Your task to perform on an android device: turn off location Image 0: 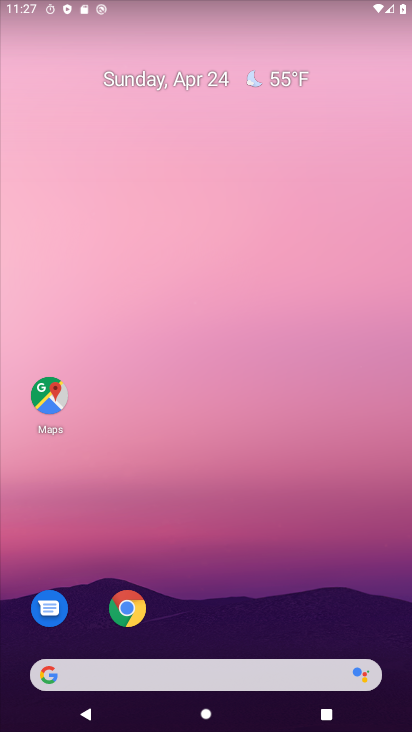
Step 0: drag from (222, 603) to (386, 131)
Your task to perform on an android device: turn off location Image 1: 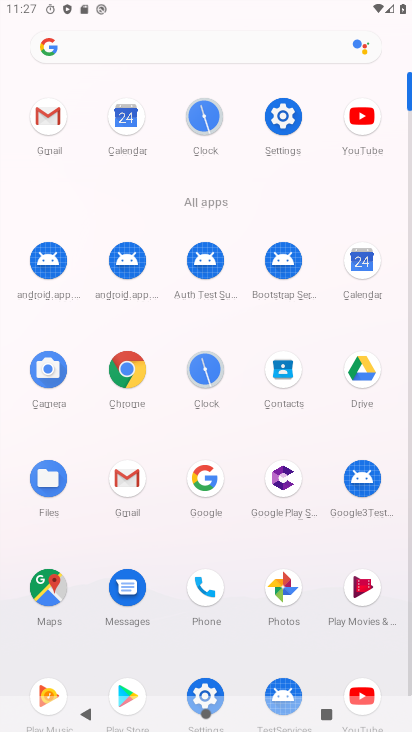
Step 1: click (269, 125)
Your task to perform on an android device: turn off location Image 2: 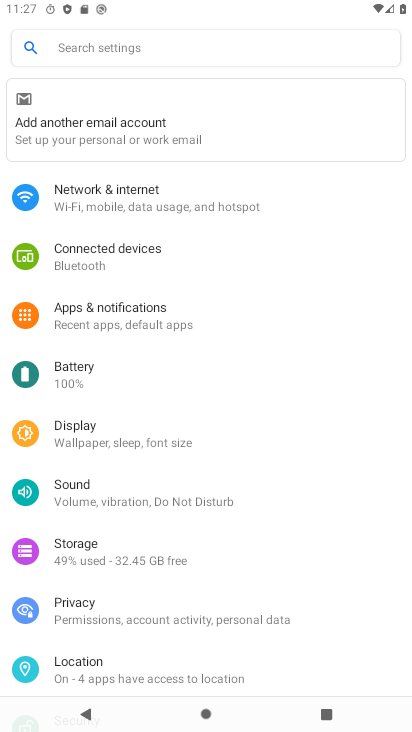
Step 2: click (88, 671)
Your task to perform on an android device: turn off location Image 3: 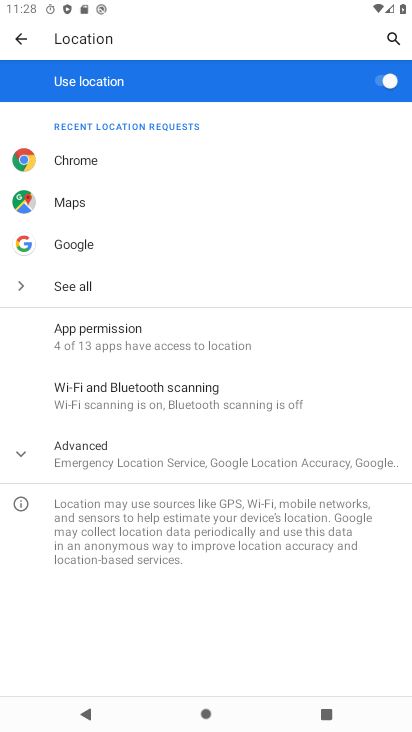
Step 3: click (389, 79)
Your task to perform on an android device: turn off location Image 4: 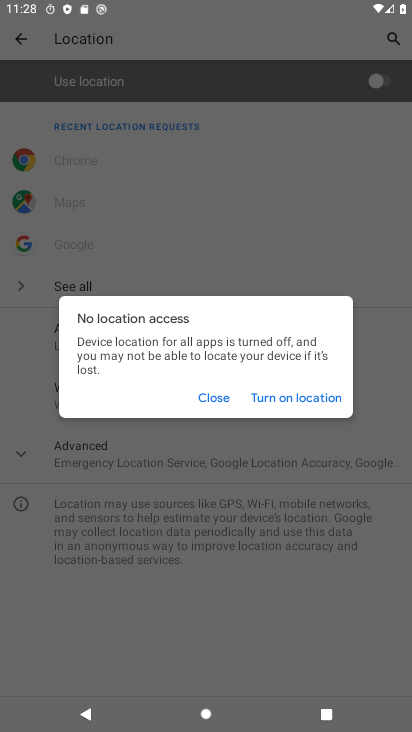
Step 4: click (212, 397)
Your task to perform on an android device: turn off location Image 5: 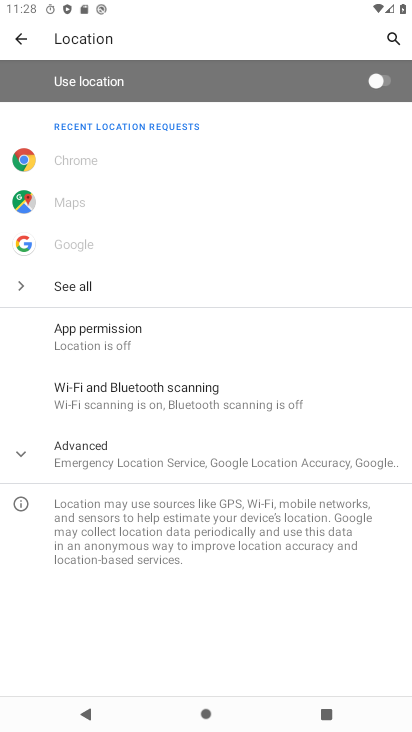
Step 5: task complete